Your task to perform on an android device: turn on showing notifications on the lock screen Image 0: 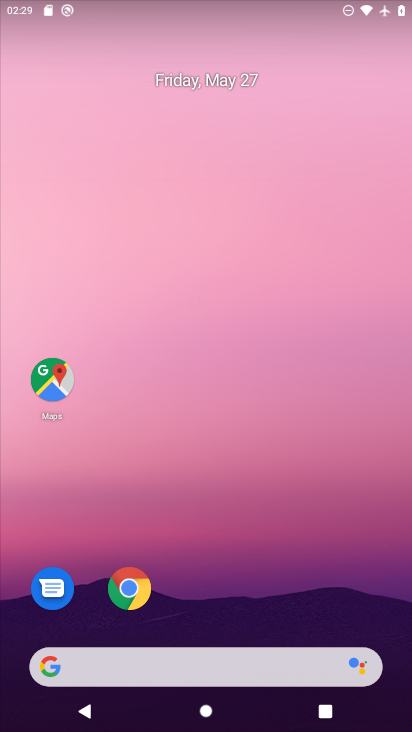
Step 0: drag from (385, 629) to (330, 79)
Your task to perform on an android device: turn on showing notifications on the lock screen Image 1: 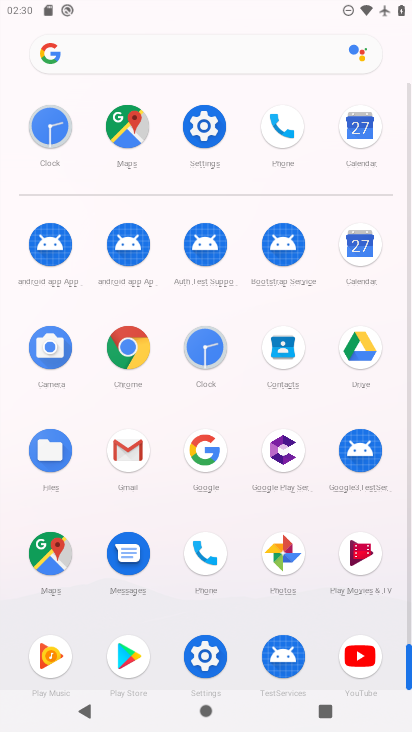
Step 1: click (203, 660)
Your task to perform on an android device: turn on showing notifications on the lock screen Image 2: 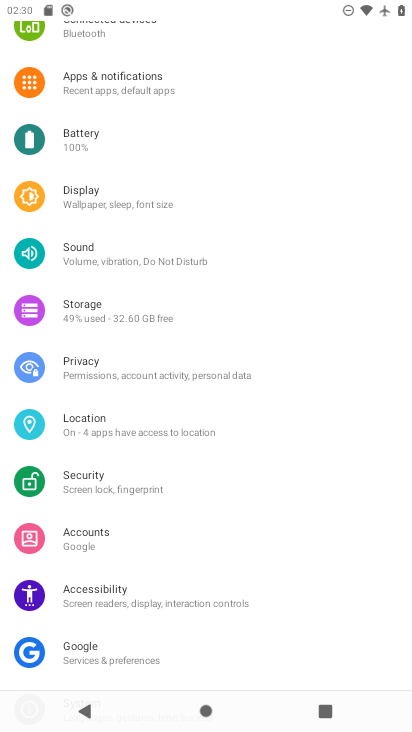
Step 2: drag from (235, 98) to (258, 344)
Your task to perform on an android device: turn on showing notifications on the lock screen Image 3: 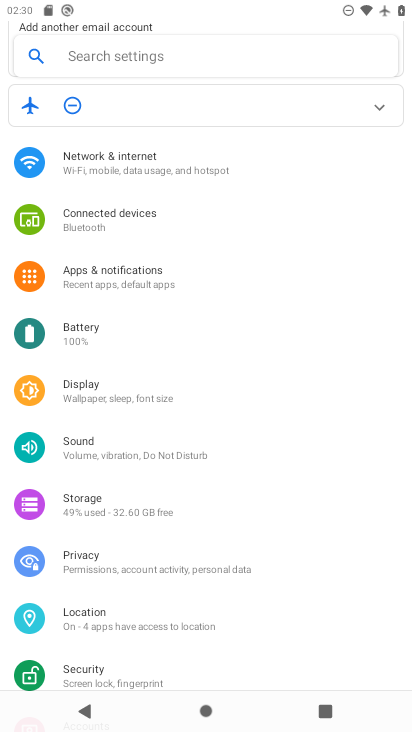
Step 3: click (98, 276)
Your task to perform on an android device: turn on showing notifications on the lock screen Image 4: 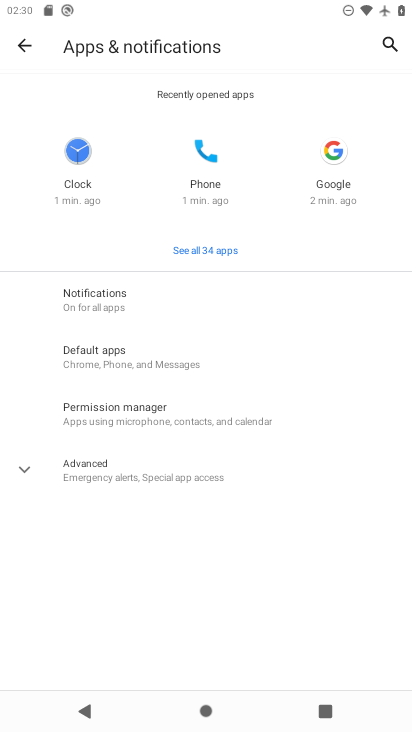
Step 4: click (105, 294)
Your task to perform on an android device: turn on showing notifications on the lock screen Image 5: 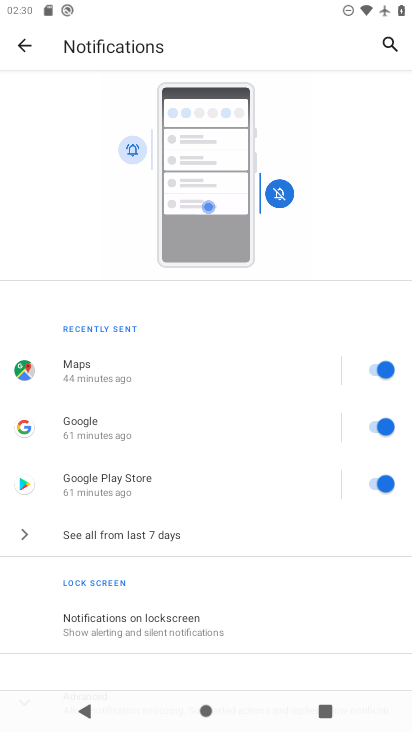
Step 5: drag from (285, 611) to (336, 199)
Your task to perform on an android device: turn on showing notifications on the lock screen Image 6: 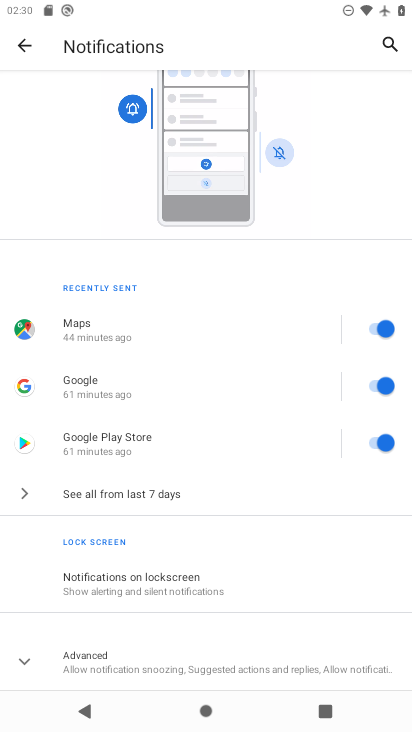
Step 6: click (143, 580)
Your task to perform on an android device: turn on showing notifications on the lock screen Image 7: 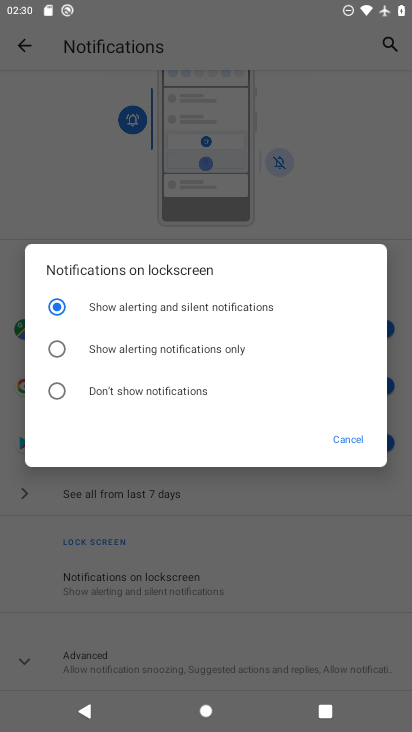
Step 7: click (56, 349)
Your task to perform on an android device: turn on showing notifications on the lock screen Image 8: 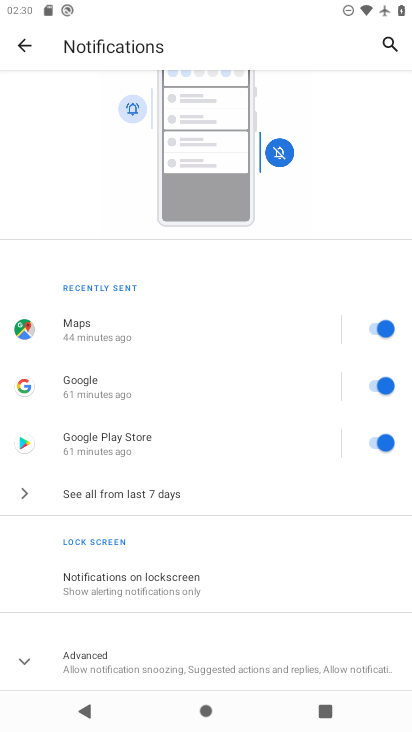
Step 8: task complete